Your task to perform on an android device: see creations saved in the google photos Image 0: 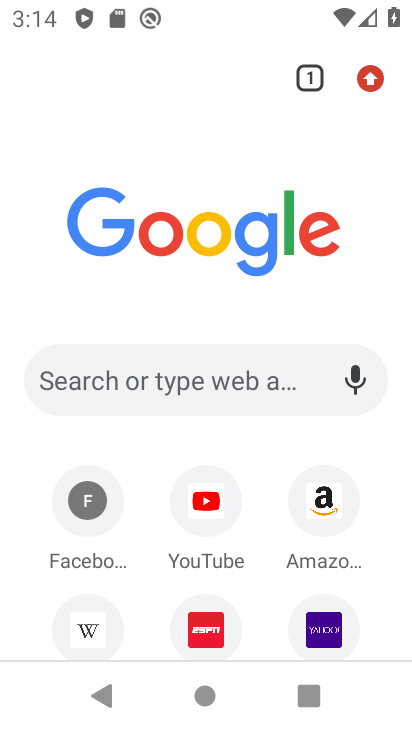
Step 0: press home button
Your task to perform on an android device: see creations saved in the google photos Image 1: 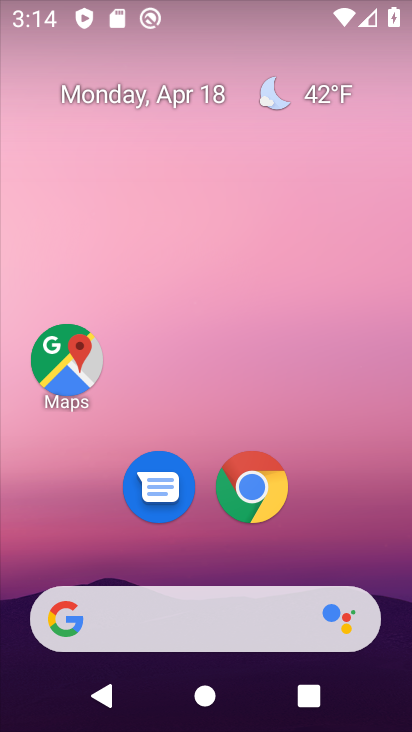
Step 1: drag from (217, 554) to (235, 214)
Your task to perform on an android device: see creations saved in the google photos Image 2: 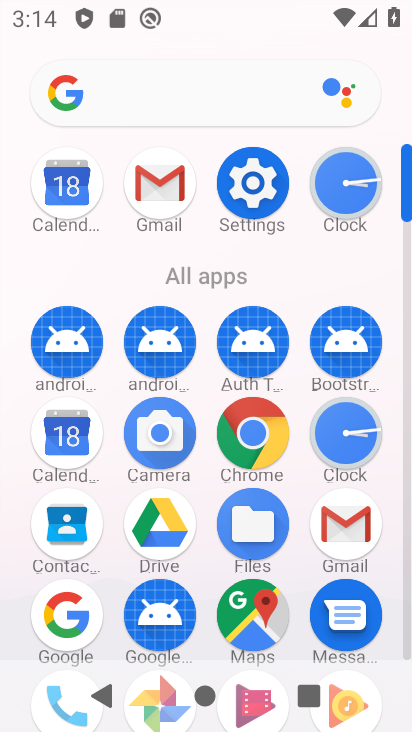
Step 2: drag from (228, 546) to (228, 391)
Your task to perform on an android device: see creations saved in the google photos Image 3: 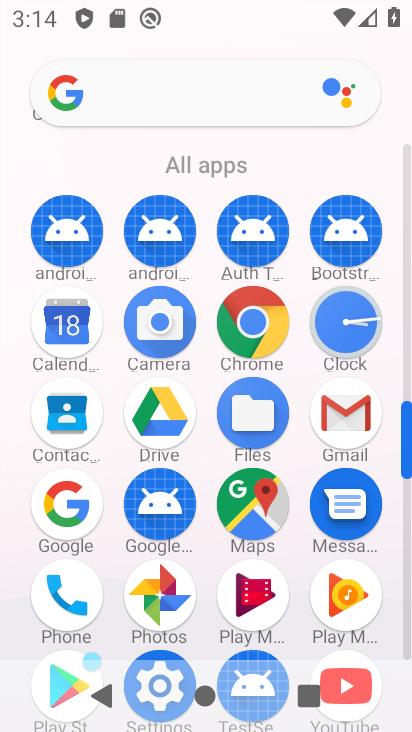
Step 3: click (177, 597)
Your task to perform on an android device: see creations saved in the google photos Image 4: 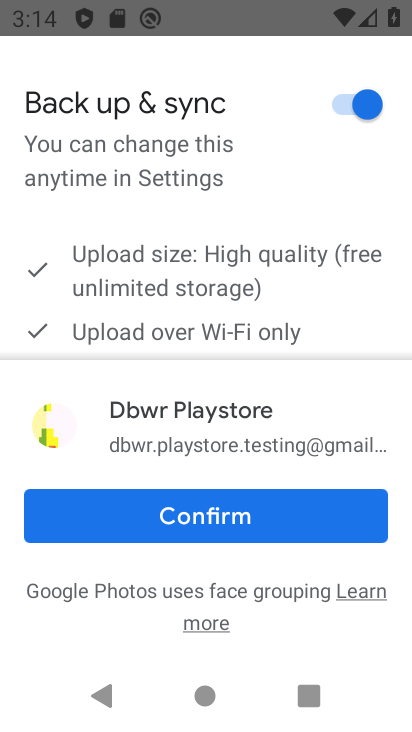
Step 4: click (189, 518)
Your task to perform on an android device: see creations saved in the google photos Image 5: 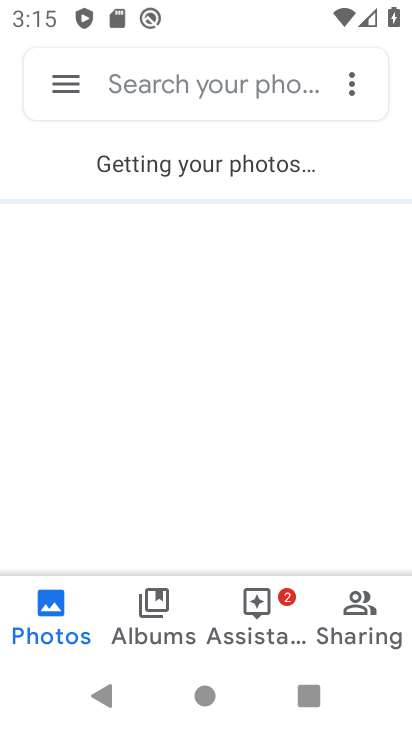
Step 5: click (167, 623)
Your task to perform on an android device: see creations saved in the google photos Image 6: 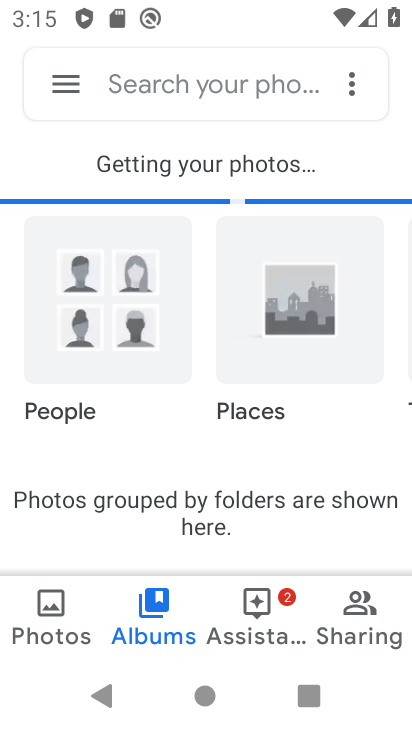
Step 6: click (193, 81)
Your task to perform on an android device: see creations saved in the google photos Image 7: 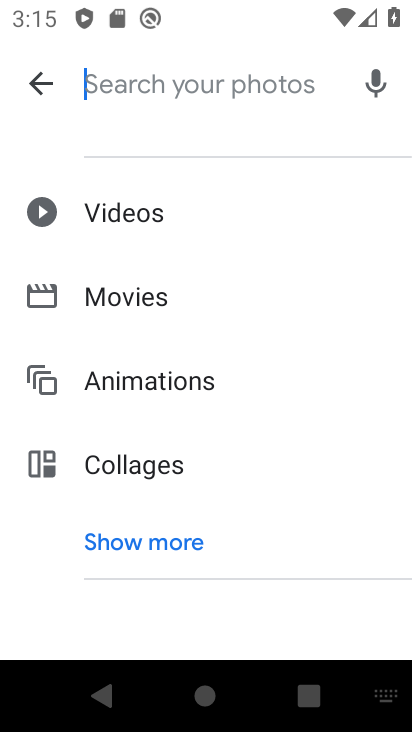
Step 7: type "creations "
Your task to perform on an android device: see creations saved in the google photos Image 8: 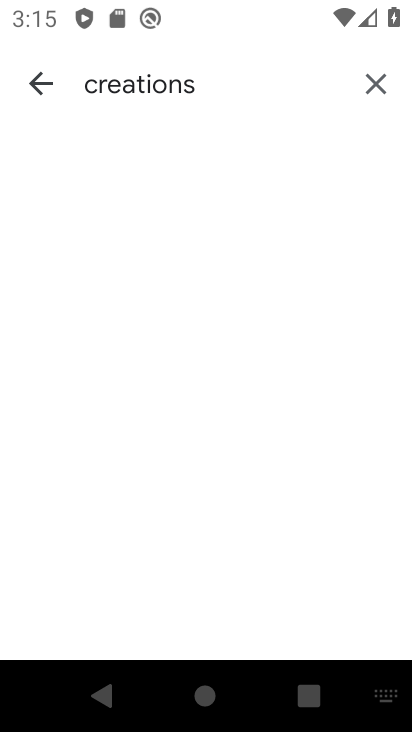
Step 8: click (196, 84)
Your task to perform on an android device: see creations saved in the google photos Image 9: 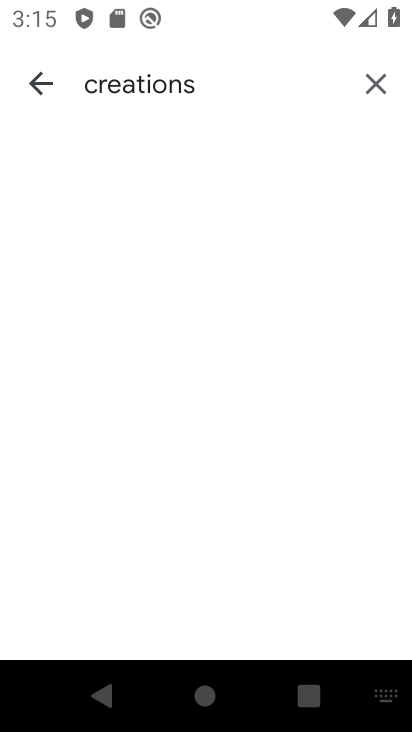
Step 9: click (369, 78)
Your task to perform on an android device: see creations saved in the google photos Image 10: 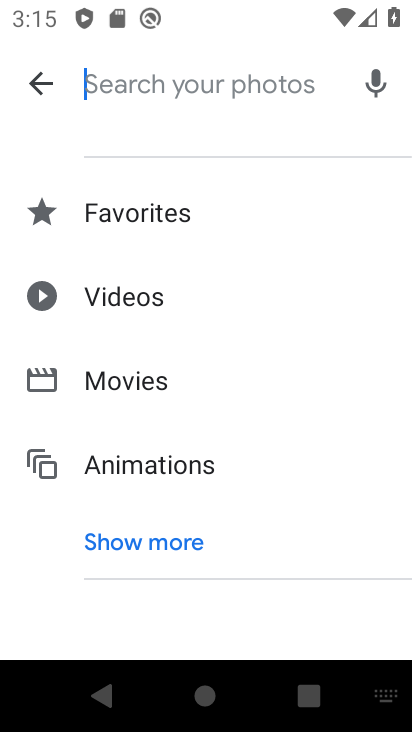
Step 10: click (200, 85)
Your task to perform on an android device: see creations saved in the google photos Image 11: 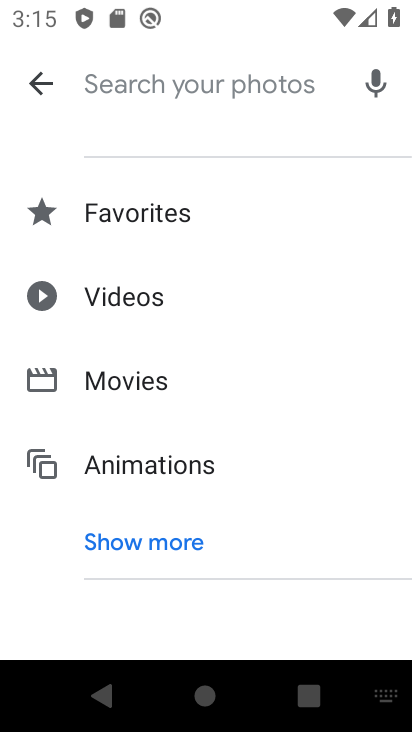
Step 11: type "creations"
Your task to perform on an android device: see creations saved in the google photos Image 12: 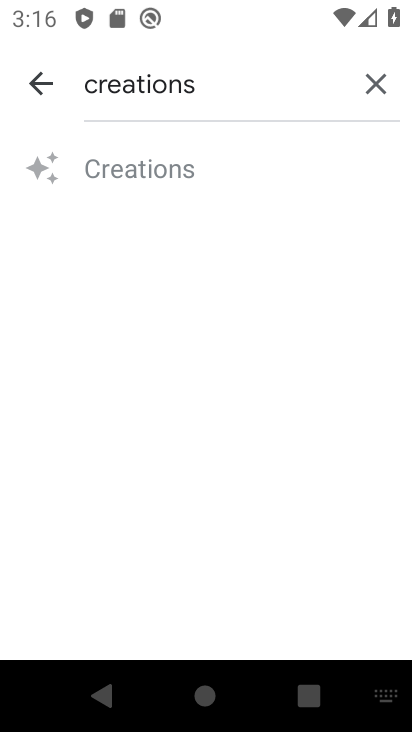
Step 12: click (163, 166)
Your task to perform on an android device: see creations saved in the google photos Image 13: 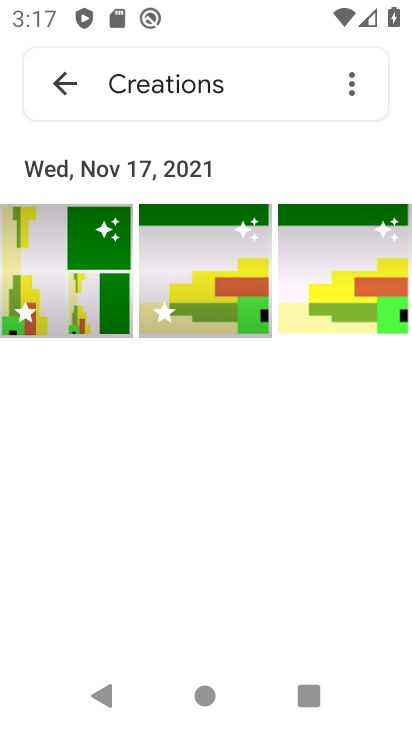
Step 13: task complete